Your task to perform on an android device: change the clock display to show seconds Image 0: 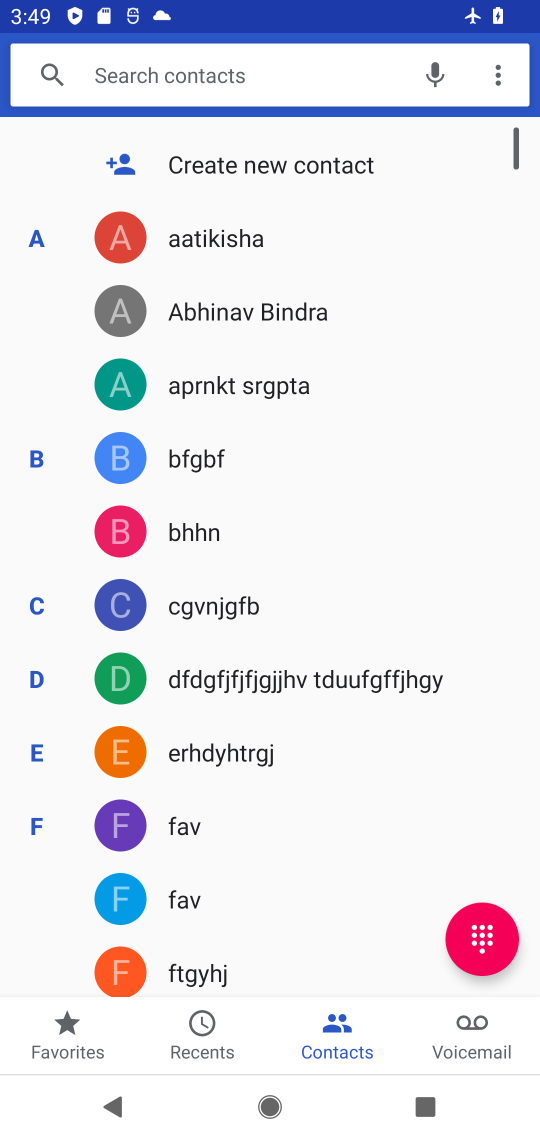
Step 0: press home button
Your task to perform on an android device: change the clock display to show seconds Image 1: 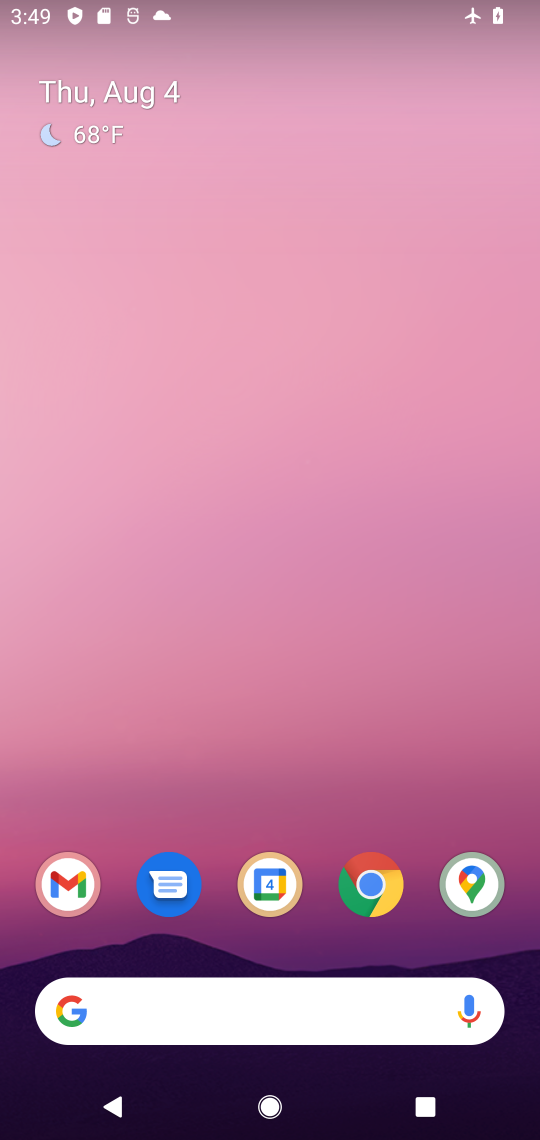
Step 1: drag from (222, 963) to (217, 341)
Your task to perform on an android device: change the clock display to show seconds Image 2: 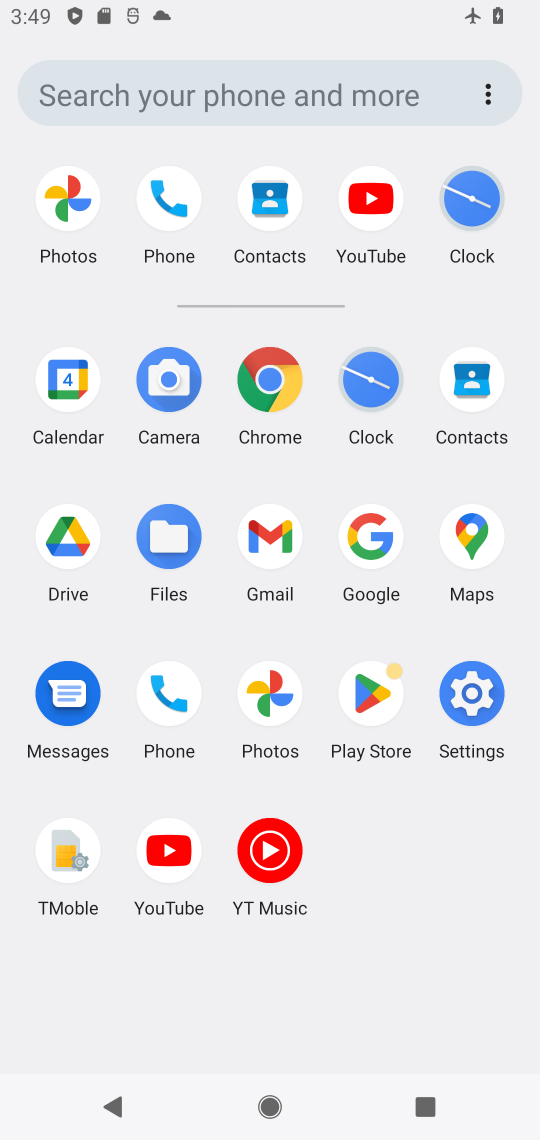
Step 2: click (355, 368)
Your task to perform on an android device: change the clock display to show seconds Image 3: 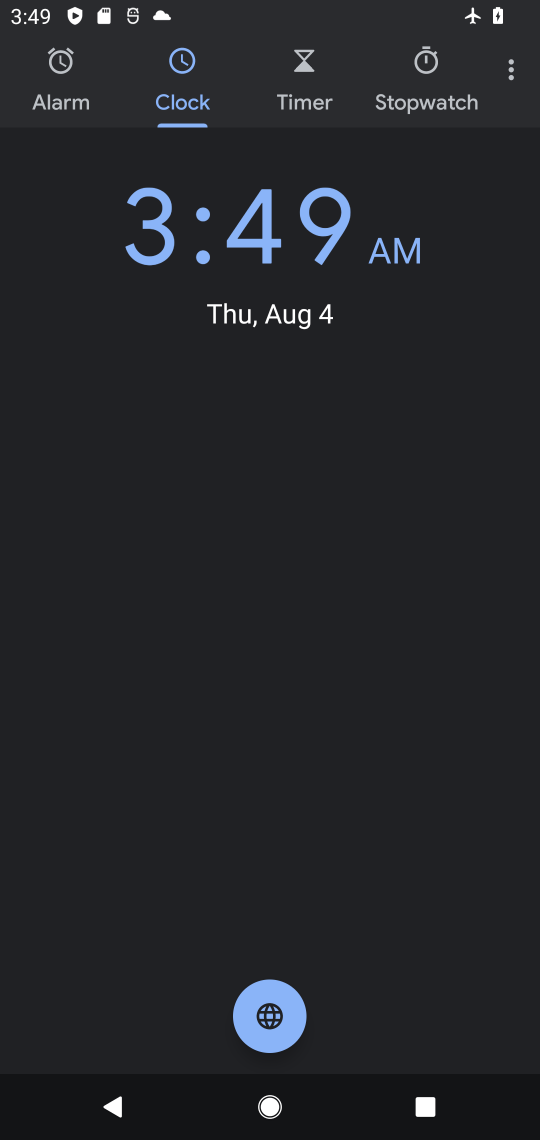
Step 3: click (527, 73)
Your task to perform on an android device: change the clock display to show seconds Image 4: 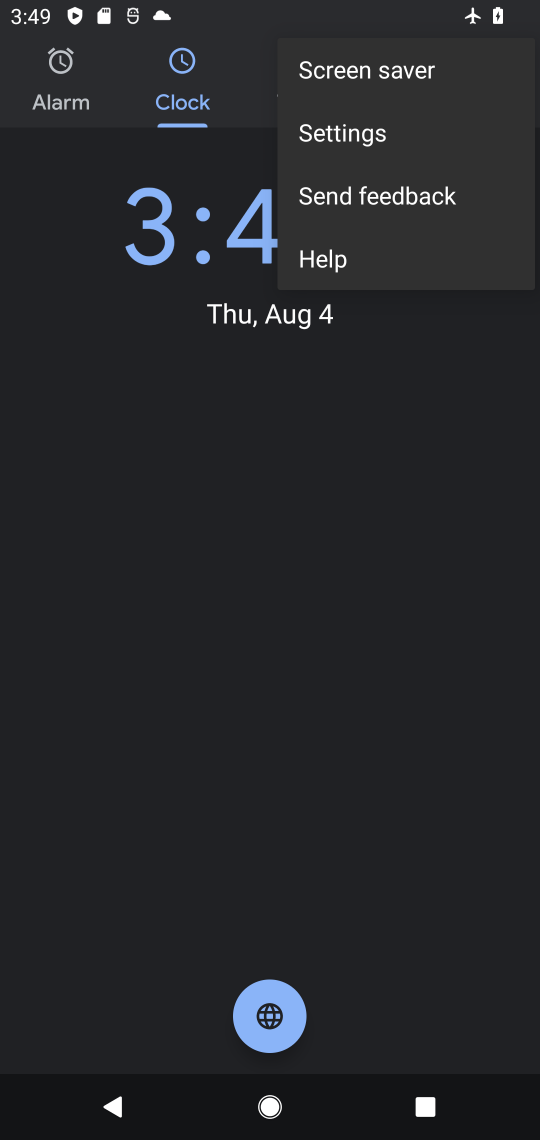
Step 4: click (377, 146)
Your task to perform on an android device: change the clock display to show seconds Image 5: 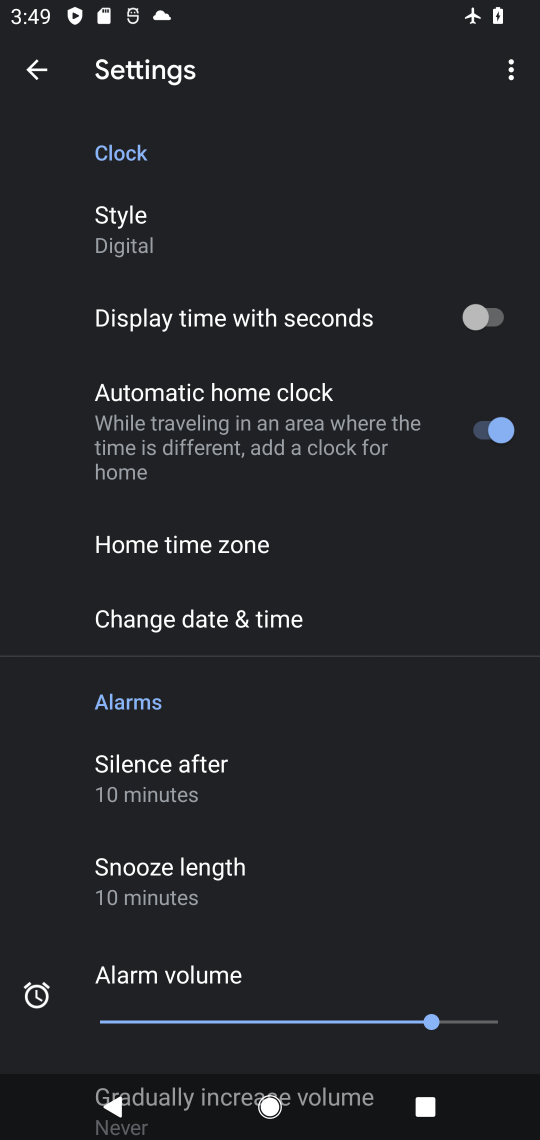
Step 5: click (488, 316)
Your task to perform on an android device: change the clock display to show seconds Image 6: 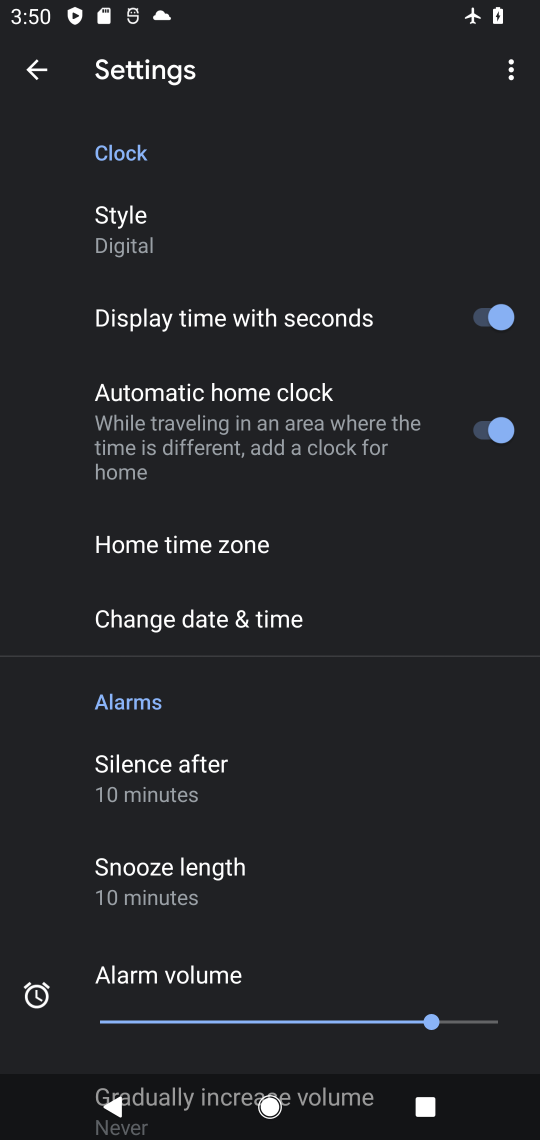
Step 6: task complete